Your task to perform on an android device: stop showing notifications on the lock screen Image 0: 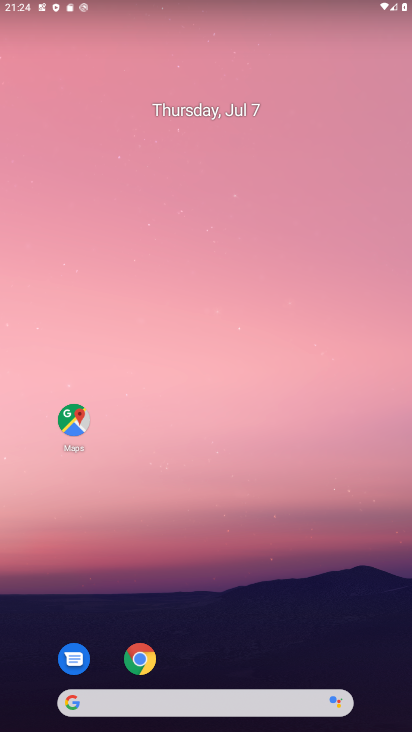
Step 0: drag from (217, 641) to (246, 53)
Your task to perform on an android device: stop showing notifications on the lock screen Image 1: 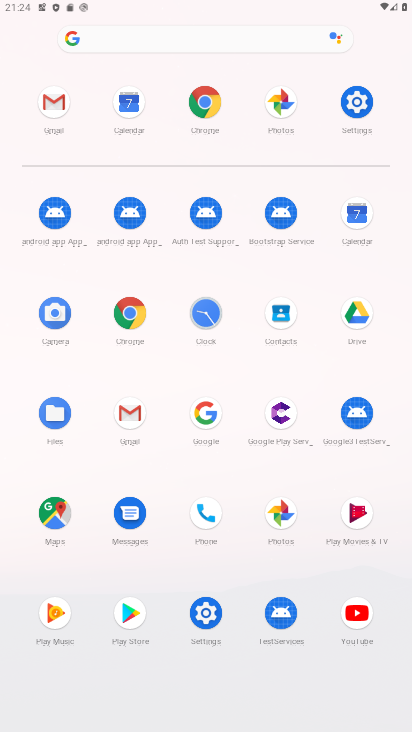
Step 1: click (203, 606)
Your task to perform on an android device: stop showing notifications on the lock screen Image 2: 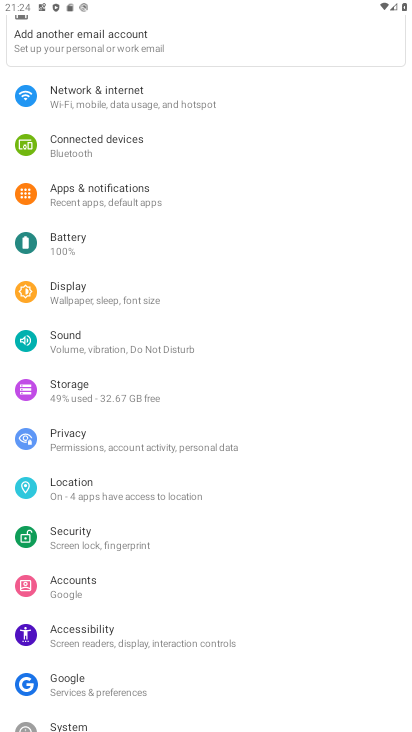
Step 2: click (136, 199)
Your task to perform on an android device: stop showing notifications on the lock screen Image 3: 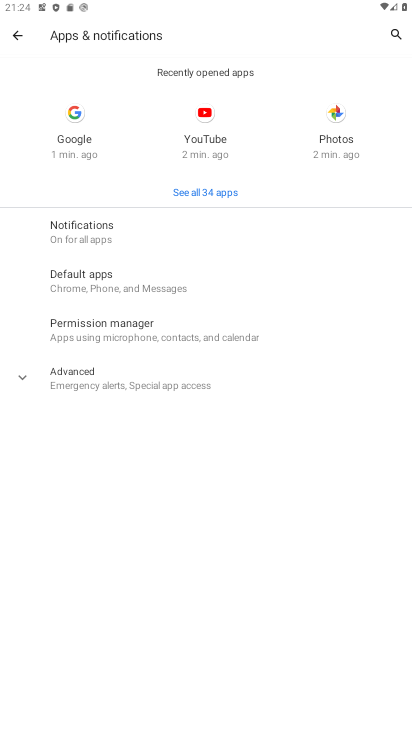
Step 3: click (133, 227)
Your task to perform on an android device: stop showing notifications on the lock screen Image 4: 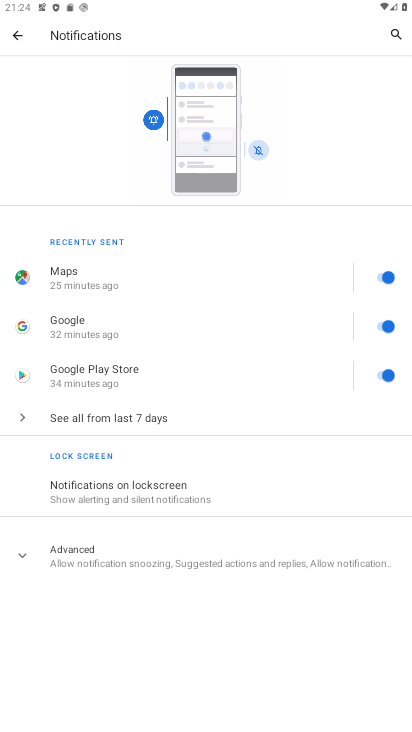
Step 4: click (164, 495)
Your task to perform on an android device: stop showing notifications on the lock screen Image 5: 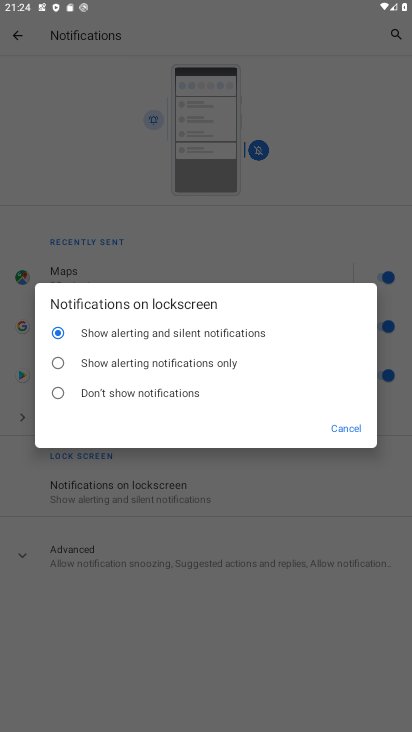
Step 5: click (159, 399)
Your task to perform on an android device: stop showing notifications on the lock screen Image 6: 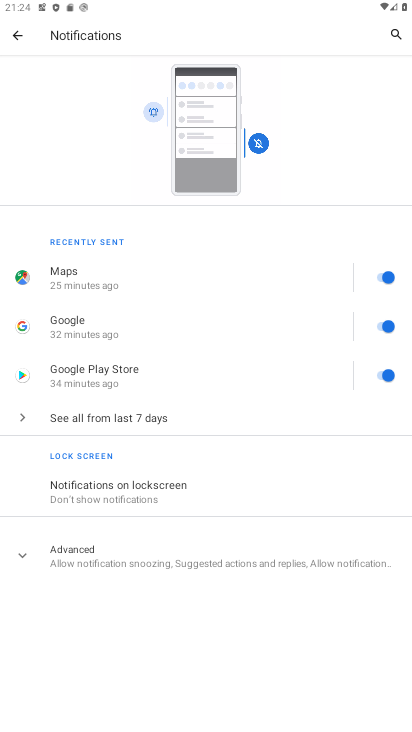
Step 6: task complete